Your task to perform on an android device: uninstall "Flipkart Online Shopping App" Image 0: 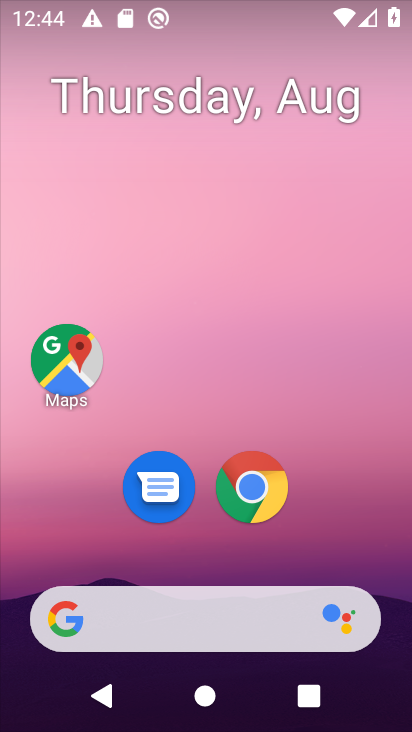
Step 0: press home button
Your task to perform on an android device: uninstall "Flipkart Online Shopping App" Image 1: 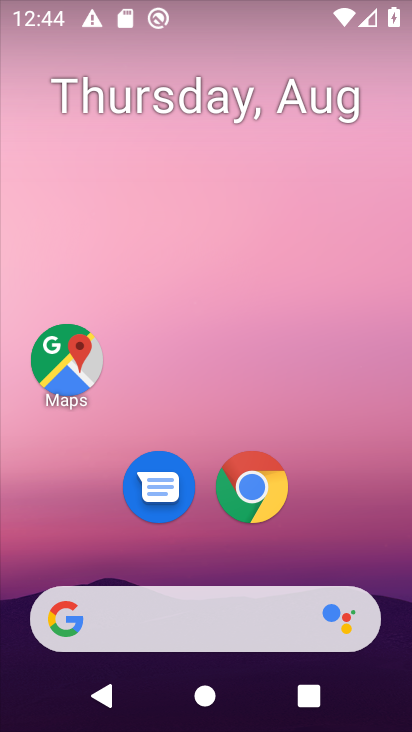
Step 1: drag from (213, 565) to (214, 89)
Your task to perform on an android device: uninstall "Flipkart Online Shopping App" Image 2: 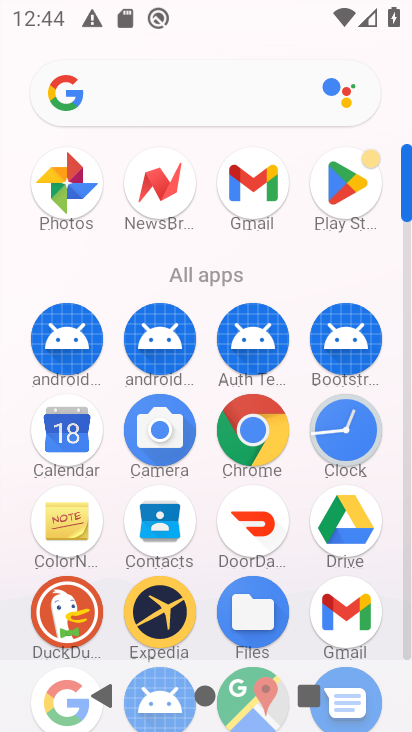
Step 2: click (338, 180)
Your task to perform on an android device: uninstall "Flipkart Online Shopping App" Image 3: 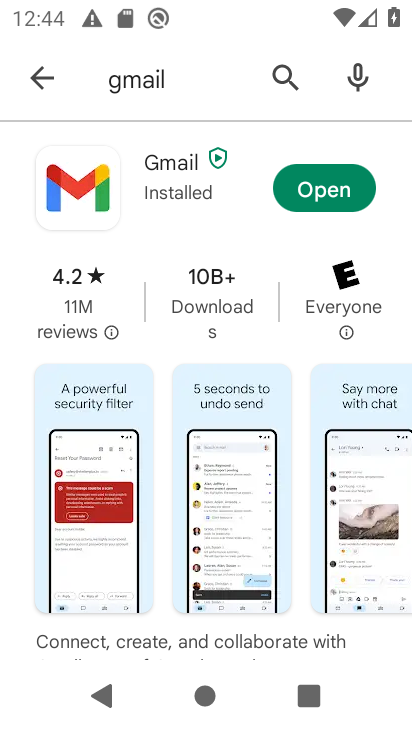
Step 3: click (284, 76)
Your task to perform on an android device: uninstall "Flipkart Online Shopping App" Image 4: 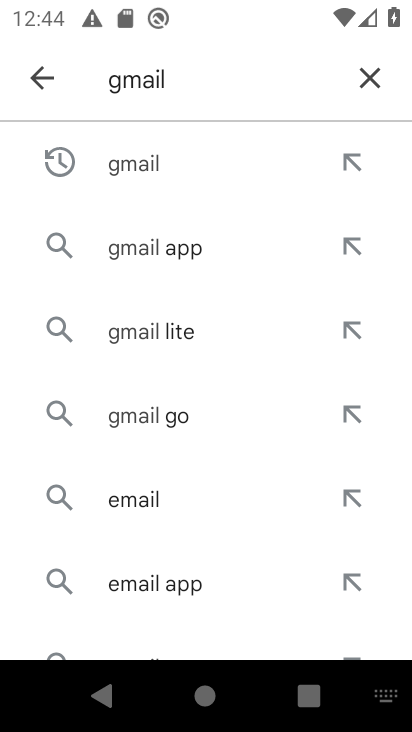
Step 4: click (371, 84)
Your task to perform on an android device: uninstall "Flipkart Online Shopping App" Image 5: 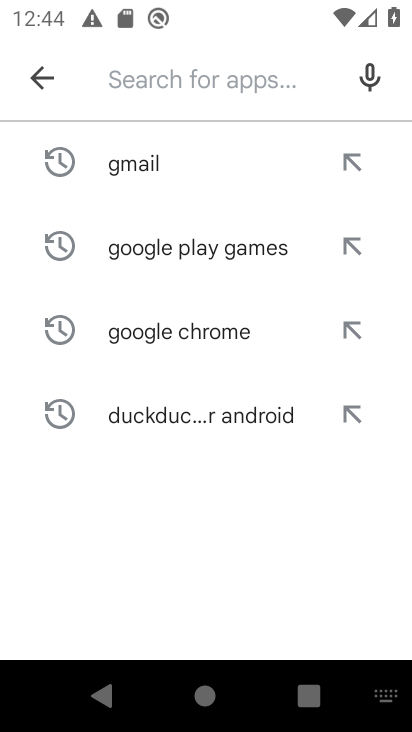
Step 5: type "Flipkart Online Shopping App"
Your task to perform on an android device: uninstall "Flipkart Online Shopping App" Image 6: 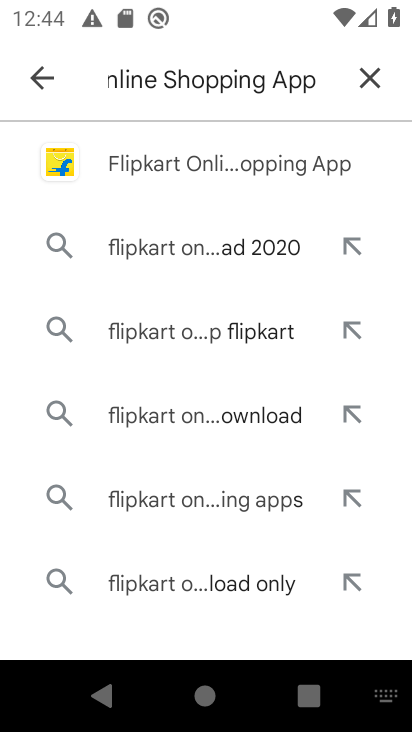
Step 6: click (180, 168)
Your task to perform on an android device: uninstall "Flipkart Online Shopping App" Image 7: 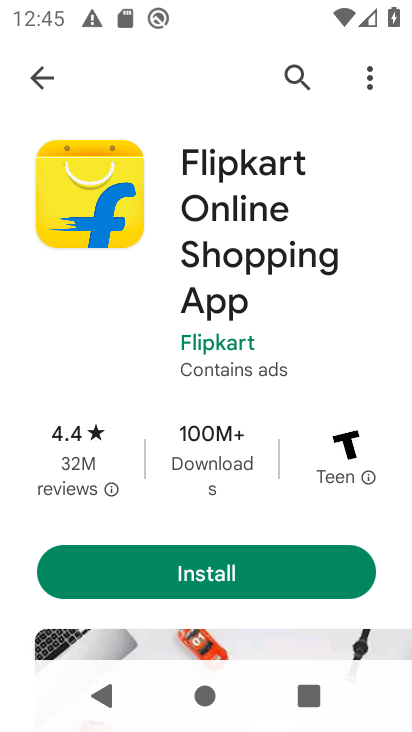
Step 7: task complete